Your task to perform on an android device: remove spam from my inbox in the gmail app Image 0: 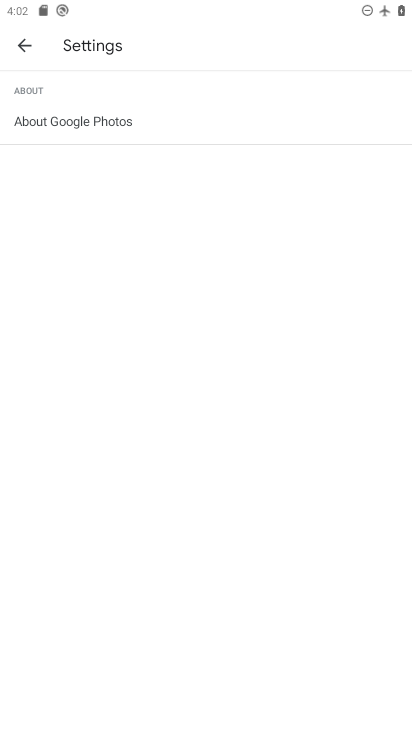
Step 0: press home button
Your task to perform on an android device: remove spam from my inbox in the gmail app Image 1: 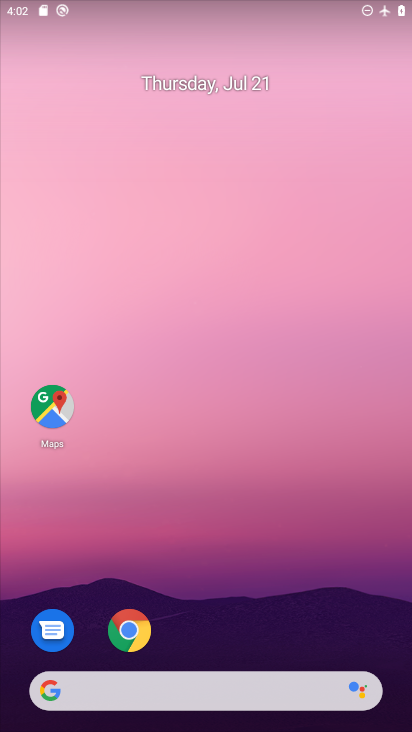
Step 1: drag from (192, 662) to (184, 40)
Your task to perform on an android device: remove spam from my inbox in the gmail app Image 2: 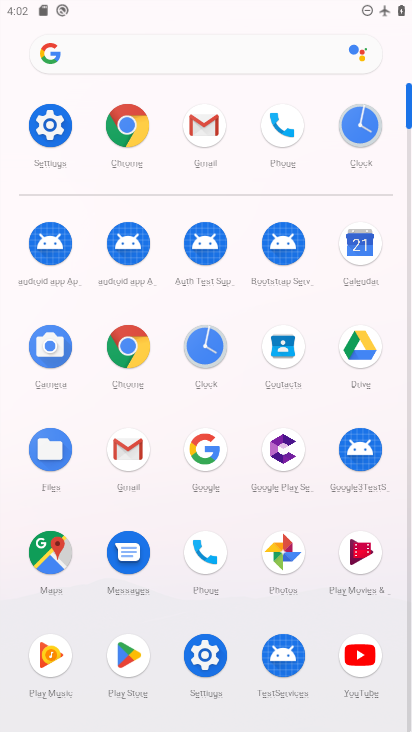
Step 2: click (127, 456)
Your task to perform on an android device: remove spam from my inbox in the gmail app Image 3: 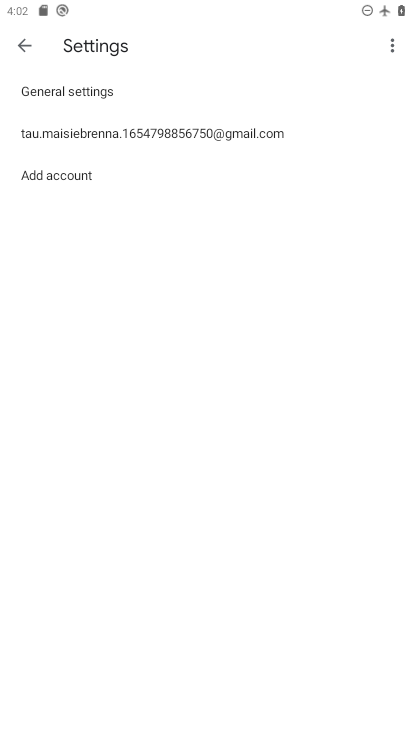
Step 3: click (19, 39)
Your task to perform on an android device: remove spam from my inbox in the gmail app Image 4: 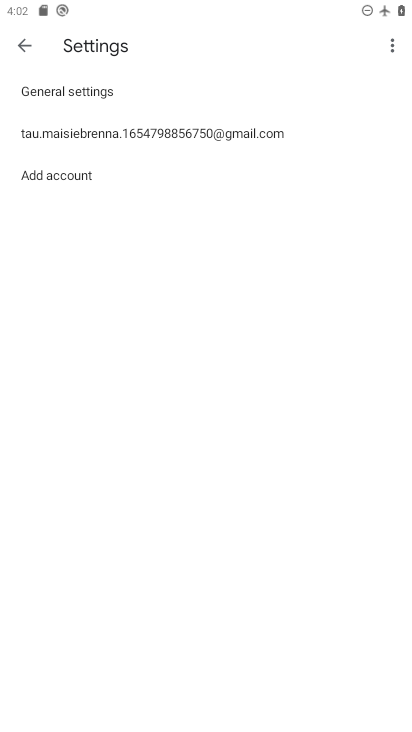
Step 4: click (14, 39)
Your task to perform on an android device: remove spam from my inbox in the gmail app Image 5: 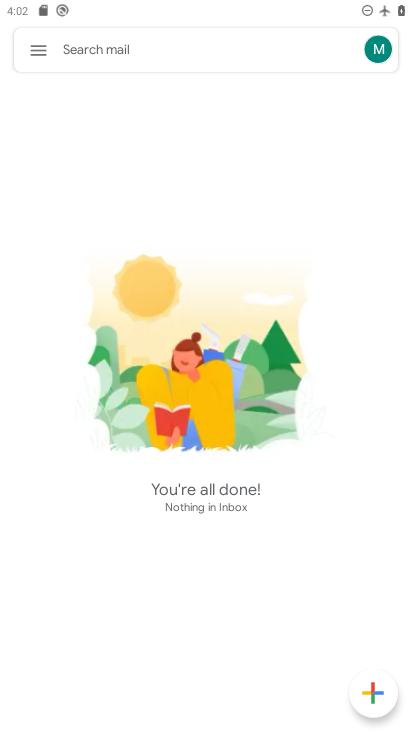
Step 5: task complete